Your task to perform on an android device: Open calendar and show me the third week of next month Image 0: 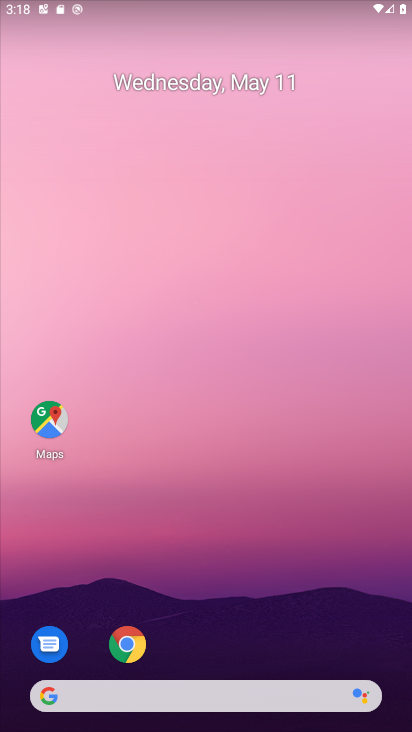
Step 0: drag from (195, 651) to (231, 11)
Your task to perform on an android device: Open calendar and show me the third week of next month Image 1: 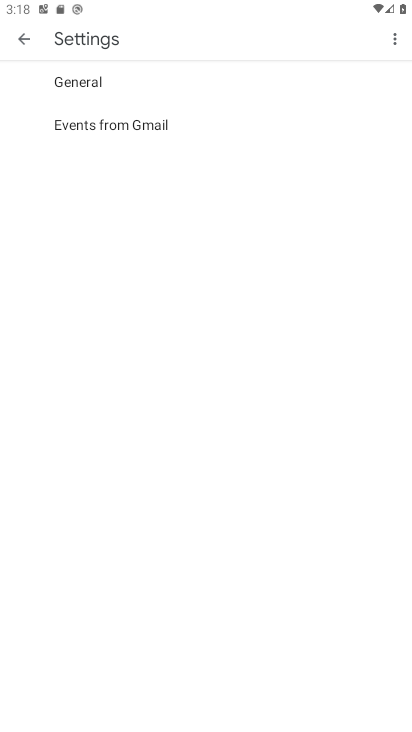
Step 1: press home button
Your task to perform on an android device: Open calendar and show me the third week of next month Image 2: 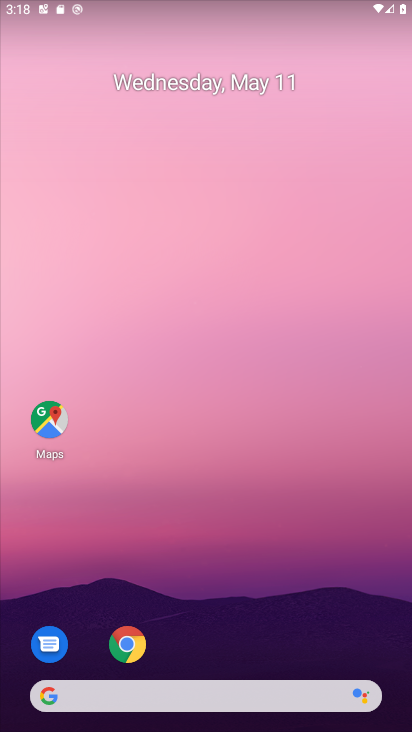
Step 2: drag from (201, 676) to (121, 1)
Your task to perform on an android device: Open calendar and show me the third week of next month Image 3: 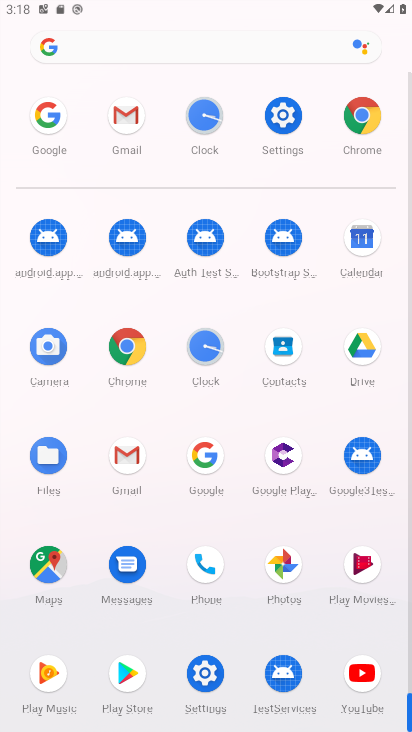
Step 3: click (353, 246)
Your task to perform on an android device: Open calendar and show me the third week of next month Image 4: 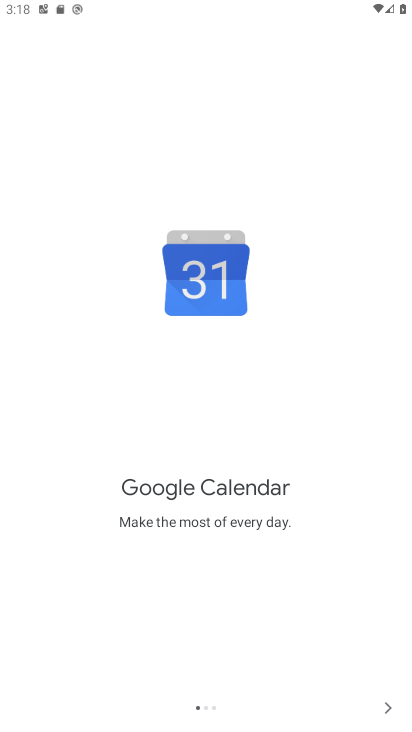
Step 4: click (390, 703)
Your task to perform on an android device: Open calendar and show me the third week of next month Image 5: 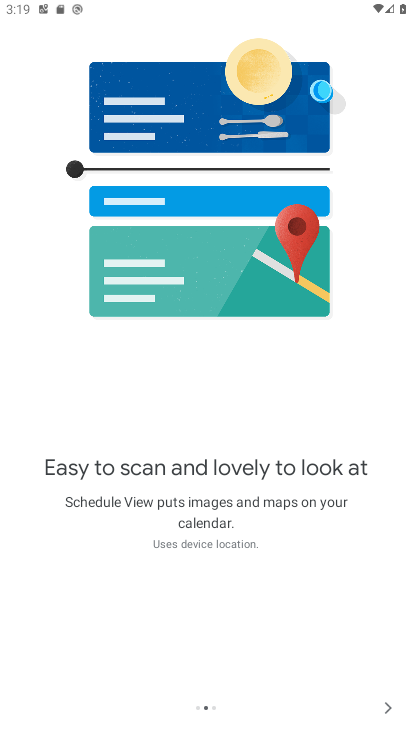
Step 5: click (387, 710)
Your task to perform on an android device: Open calendar and show me the third week of next month Image 6: 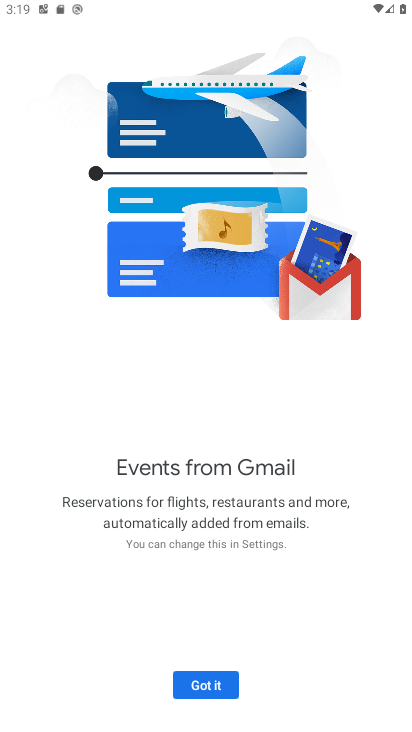
Step 6: click (230, 689)
Your task to perform on an android device: Open calendar and show me the third week of next month Image 7: 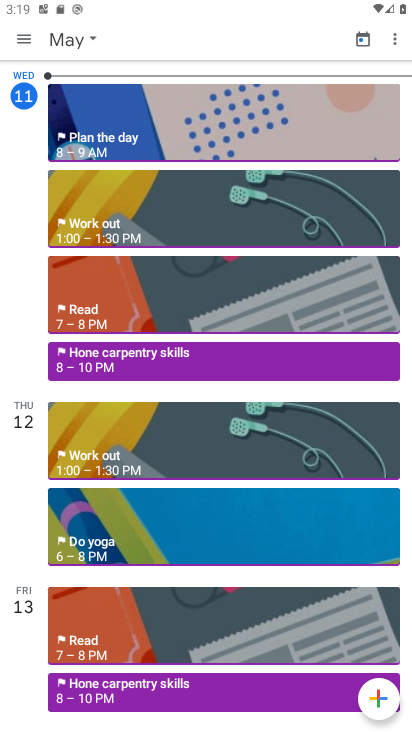
Step 7: click (11, 45)
Your task to perform on an android device: Open calendar and show me the third week of next month Image 8: 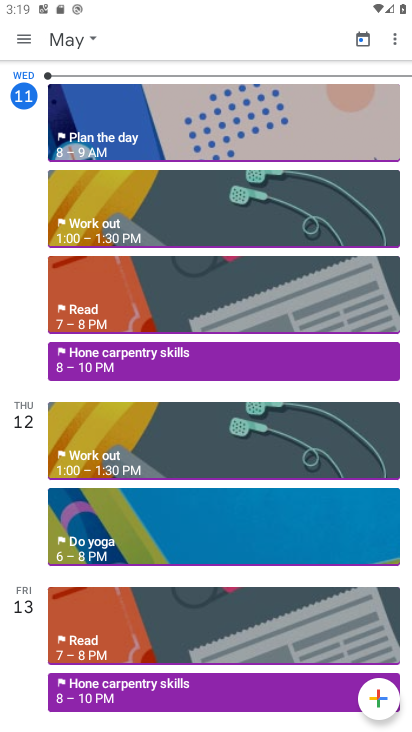
Step 8: click (29, 40)
Your task to perform on an android device: Open calendar and show me the third week of next month Image 9: 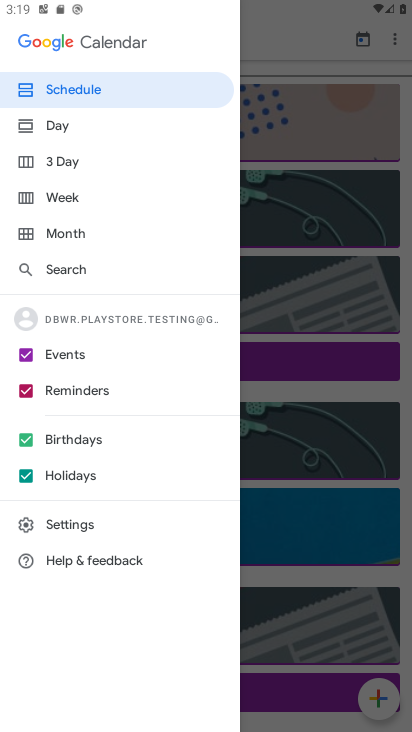
Step 9: click (76, 180)
Your task to perform on an android device: Open calendar and show me the third week of next month Image 10: 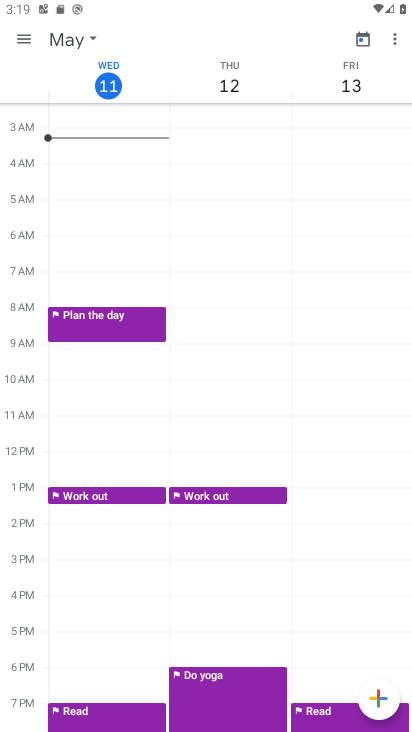
Step 10: drag from (357, 81) to (57, 82)
Your task to perform on an android device: Open calendar and show me the third week of next month Image 11: 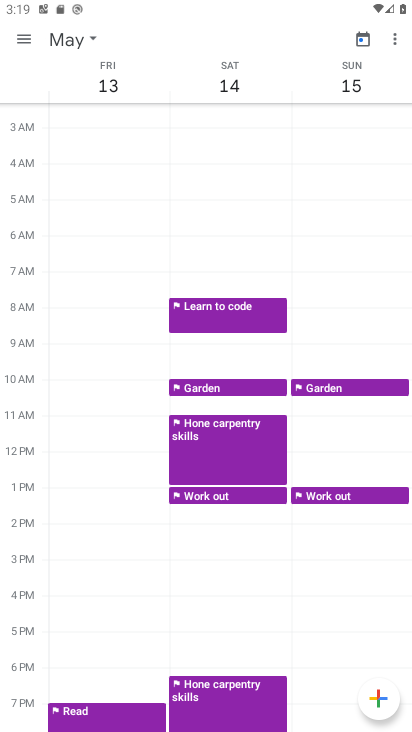
Step 11: click (9, 30)
Your task to perform on an android device: Open calendar and show me the third week of next month Image 12: 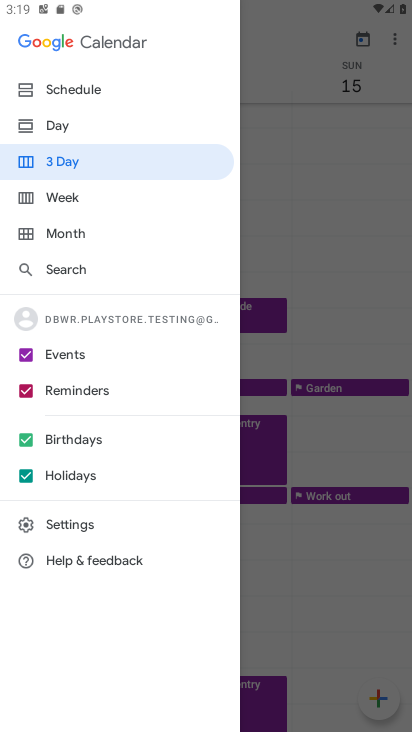
Step 12: click (65, 183)
Your task to perform on an android device: Open calendar and show me the third week of next month Image 13: 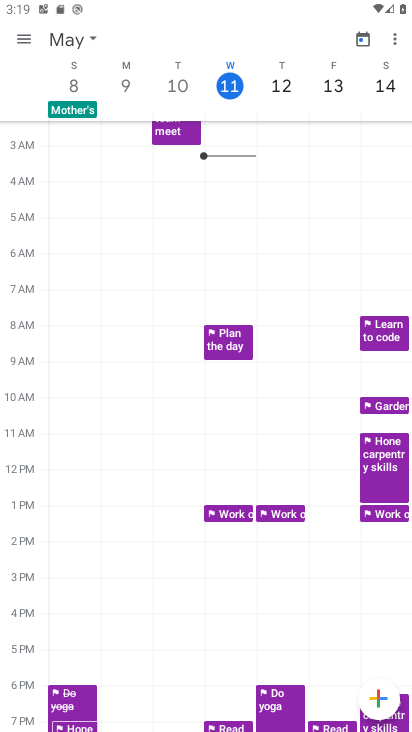
Step 13: task complete